Your task to perform on an android device: change the clock display to show seconds Image 0: 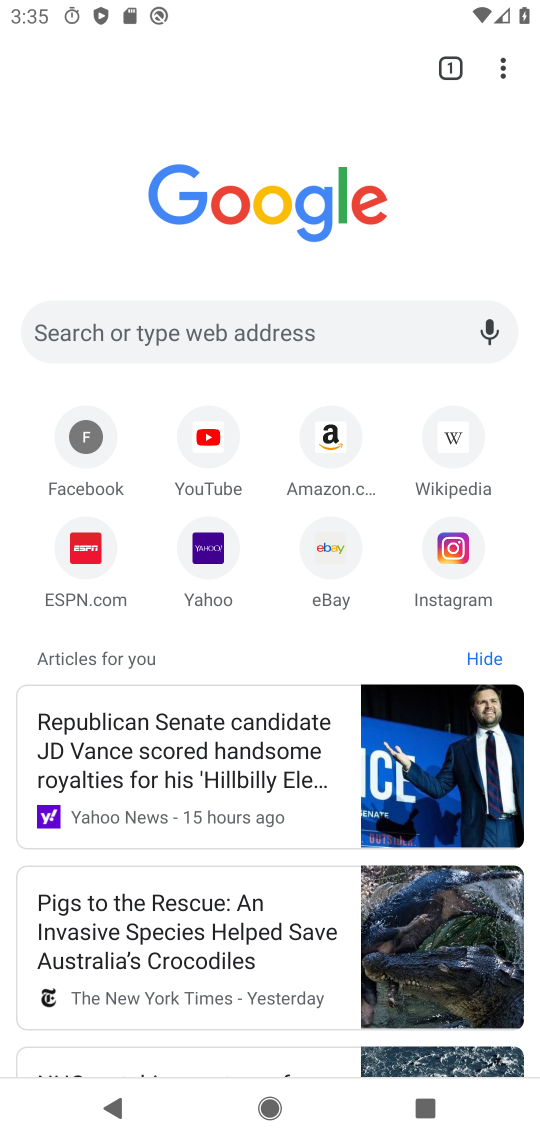
Step 0: press home button
Your task to perform on an android device: change the clock display to show seconds Image 1: 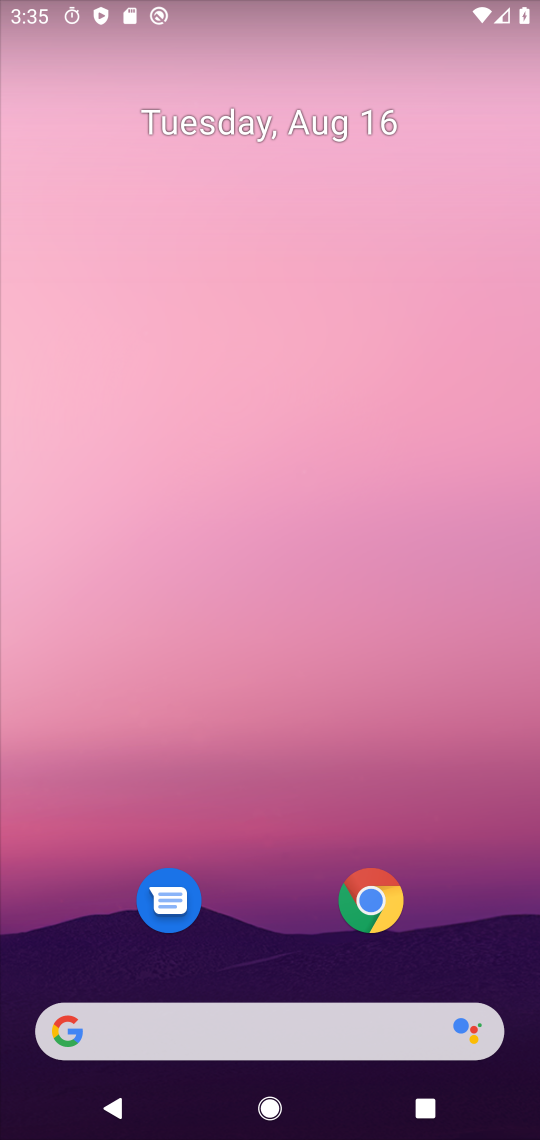
Step 1: drag from (283, 990) to (281, 735)
Your task to perform on an android device: change the clock display to show seconds Image 2: 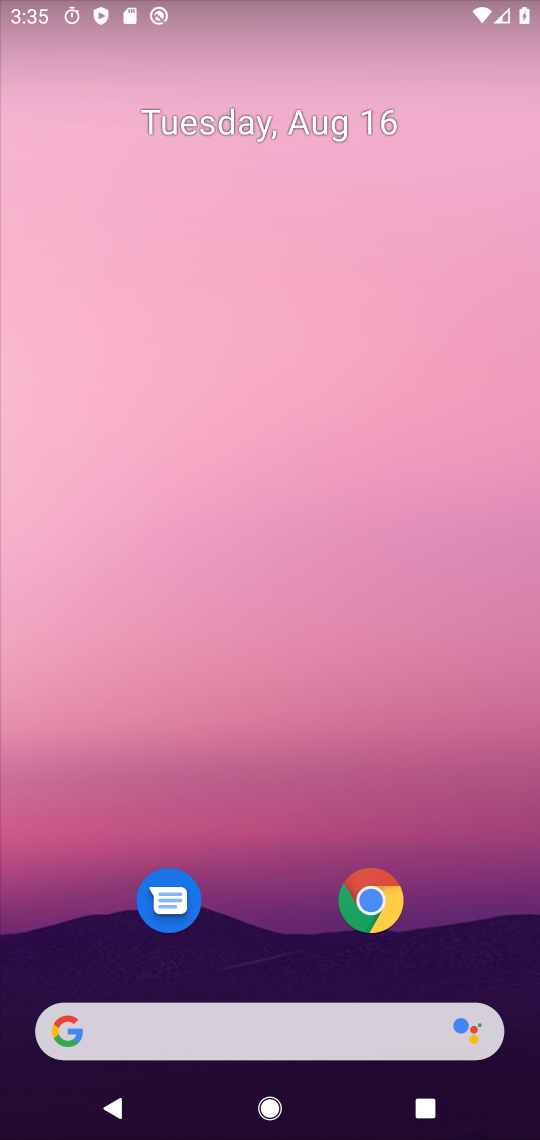
Step 2: click (278, 274)
Your task to perform on an android device: change the clock display to show seconds Image 3: 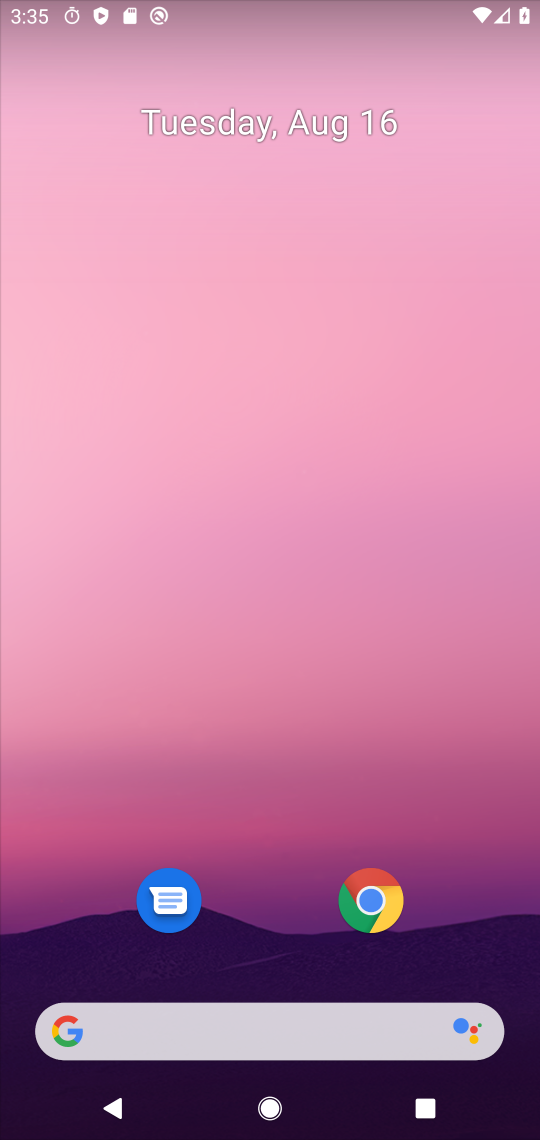
Step 3: drag from (253, 846) to (83, 0)
Your task to perform on an android device: change the clock display to show seconds Image 4: 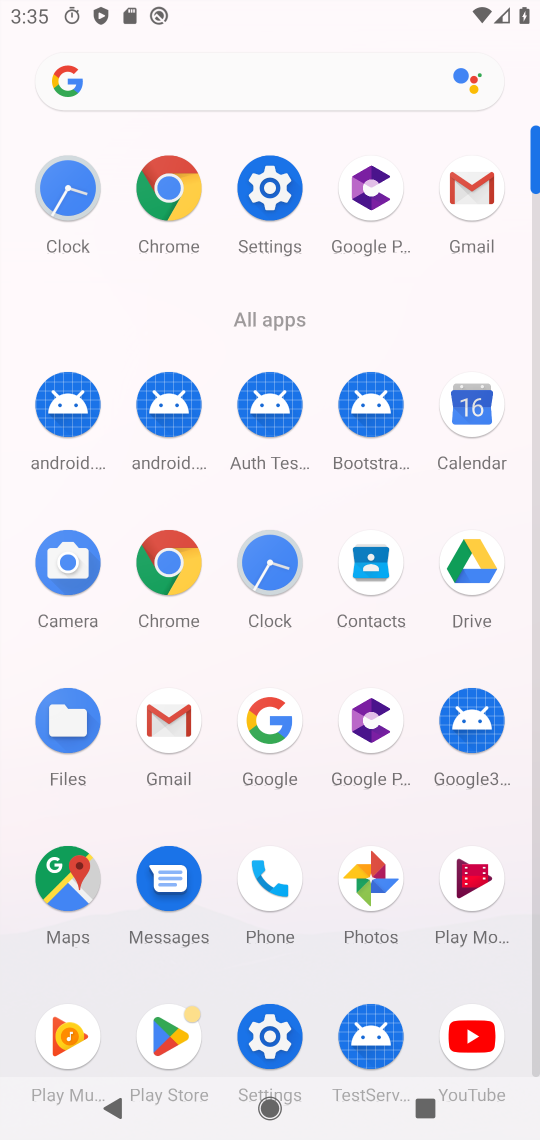
Step 4: click (269, 572)
Your task to perform on an android device: change the clock display to show seconds Image 5: 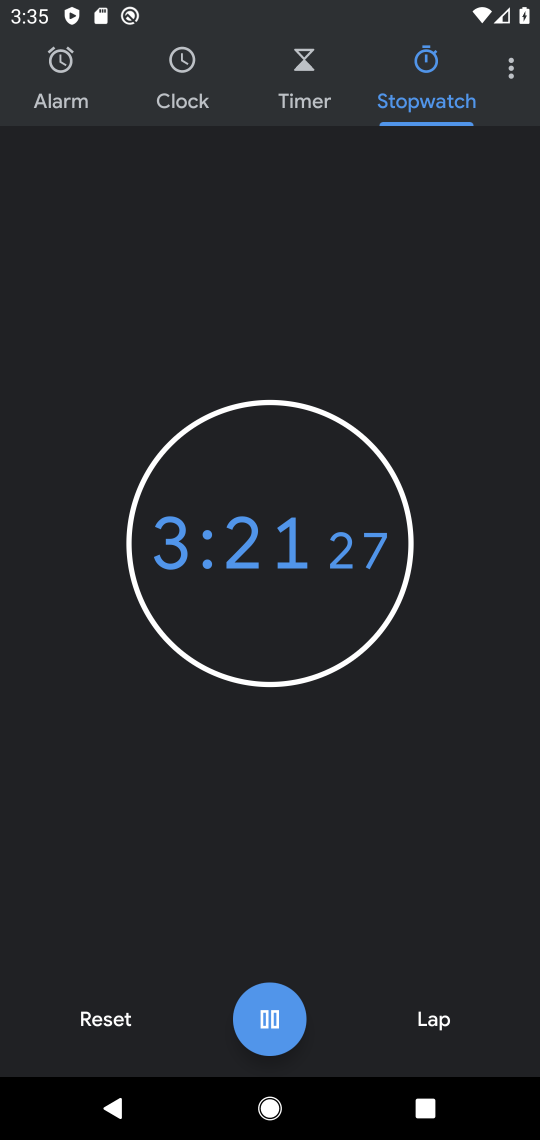
Step 5: click (512, 77)
Your task to perform on an android device: change the clock display to show seconds Image 6: 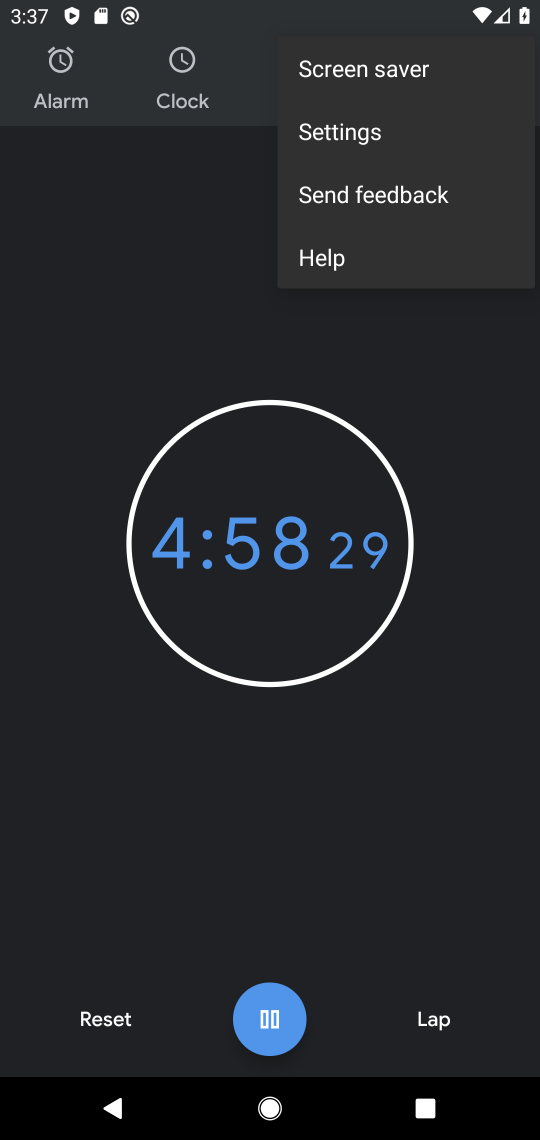
Step 6: click (354, 126)
Your task to perform on an android device: change the clock display to show seconds Image 7: 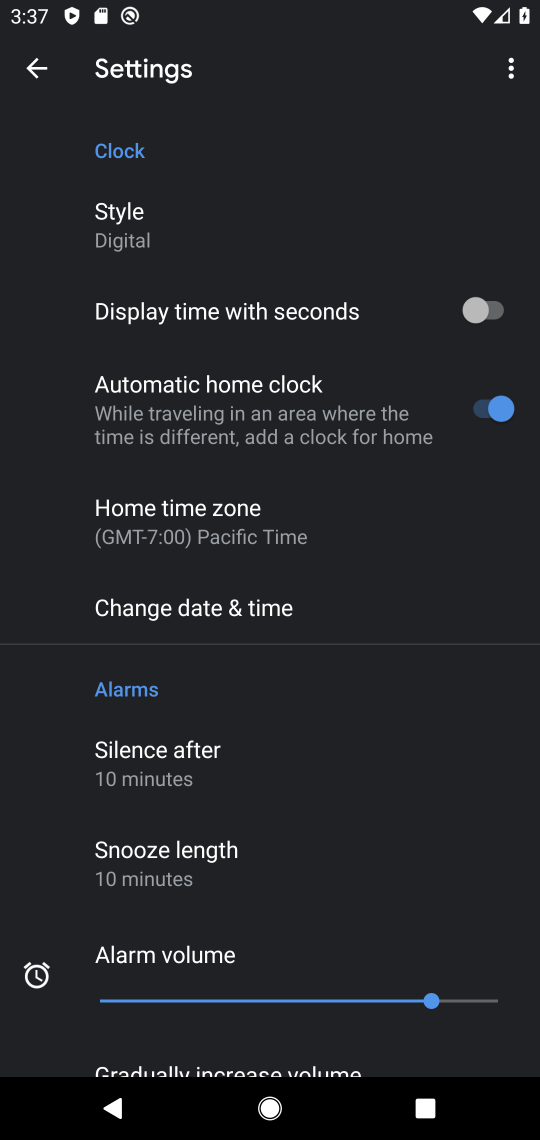
Step 7: click (488, 308)
Your task to perform on an android device: change the clock display to show seconds Image 8: 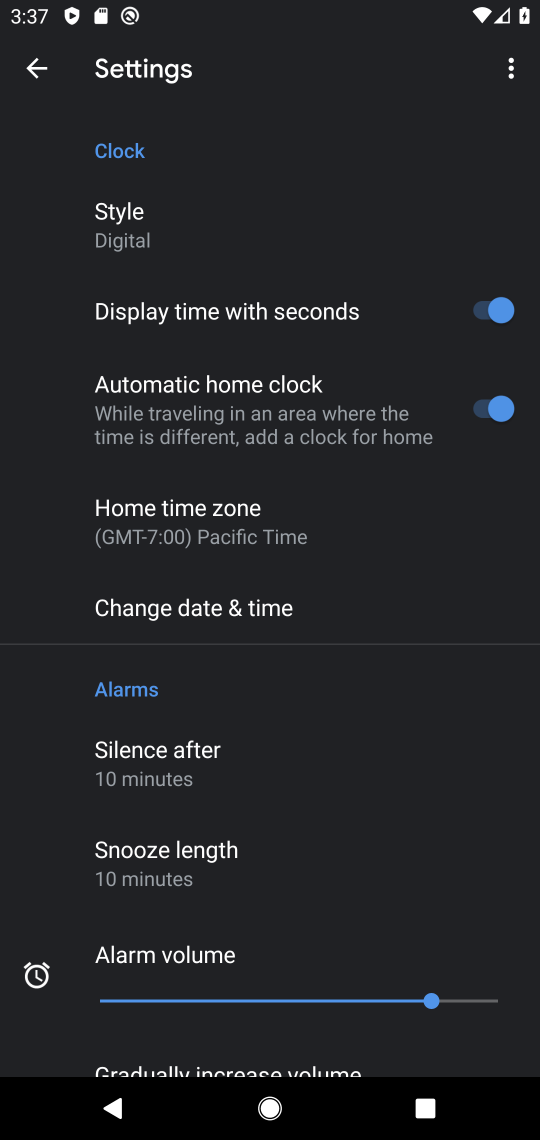
Step 8: task complete